Your task to perform on an android device: toggle priority inbox in the gmail app Image 0: 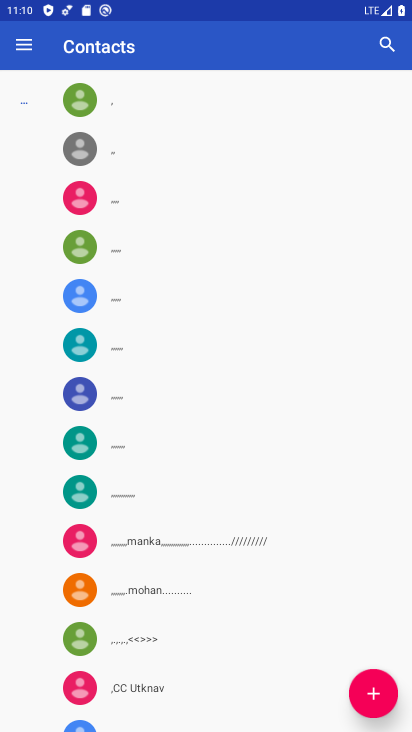
Step 0: press home button
Your task to perform on an android device: toggle priority inbox in the gmail app Image 1: 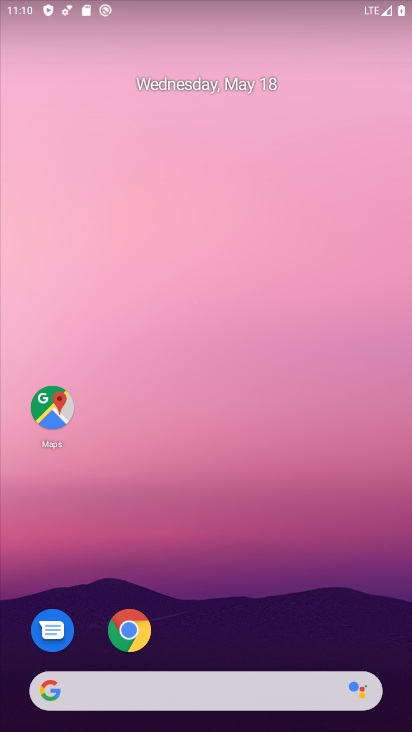
Step 1: drag from (221, 599) to (274, 100)
Your task to perform on an android device: toggle priority inbox in the gmail app Image 2: 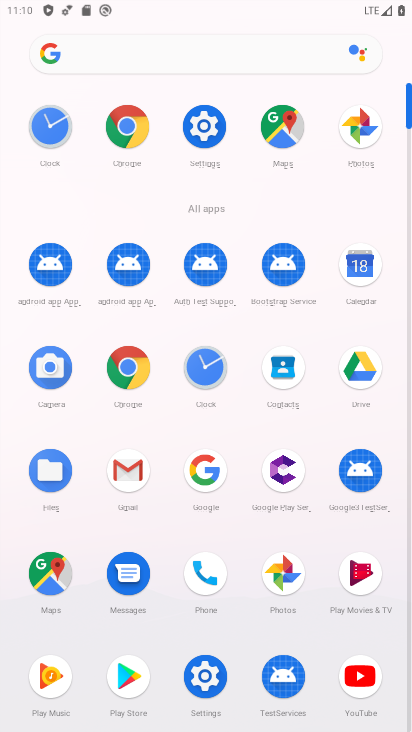
Step 2: click (134, 461)
Your task to perform on an android device: toggle priority inbox in the gmail app Image 3: 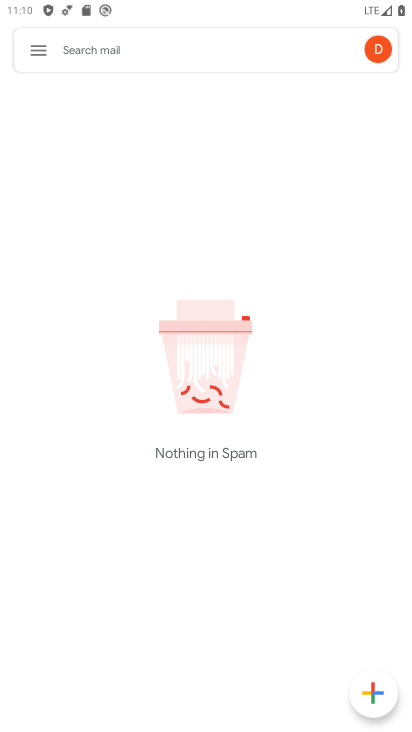
Step 3: click (44, 46)
Your task to perform on an android device: toggle priority inbox in the gmail app Image 4: 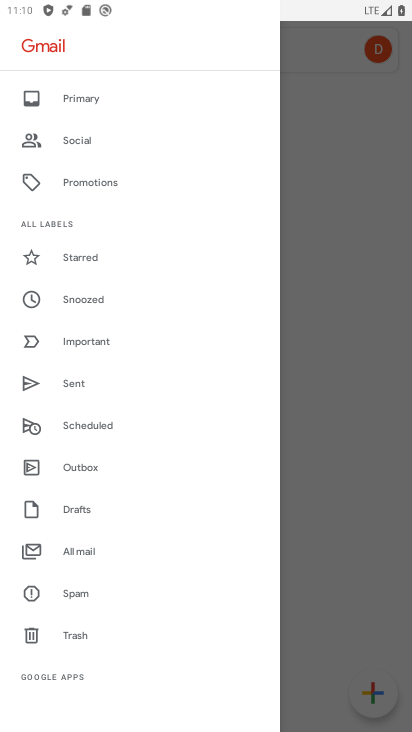
Step 4: drag from (98, 569) to (135, 310)
Your task to perform on an android device: toggle priority inbox in the gmail app Image 5: 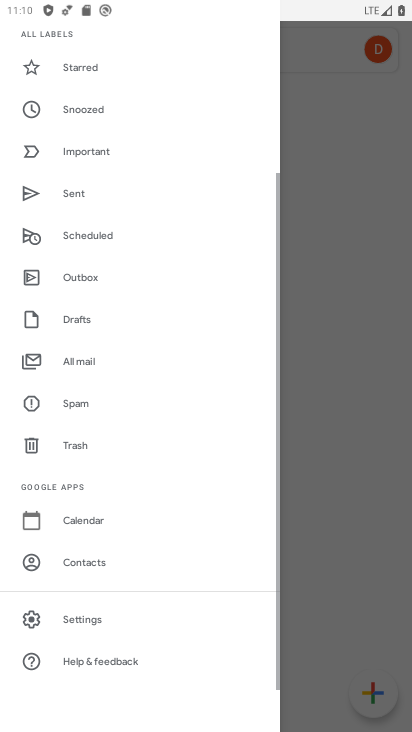
Step 5: click (85, 619)
Your task to perform on an android device: toggle priority inbox in the gmail app Image 6: 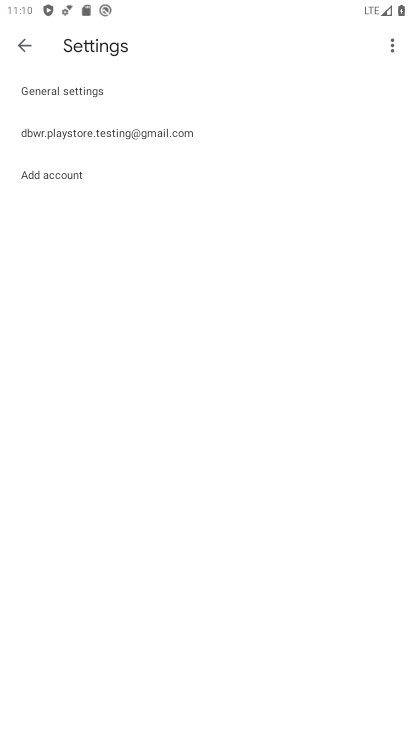
Step 6: click (89, 127)
Your task to perform on an android device: toggle priority inbox in the gmail app Image 7: 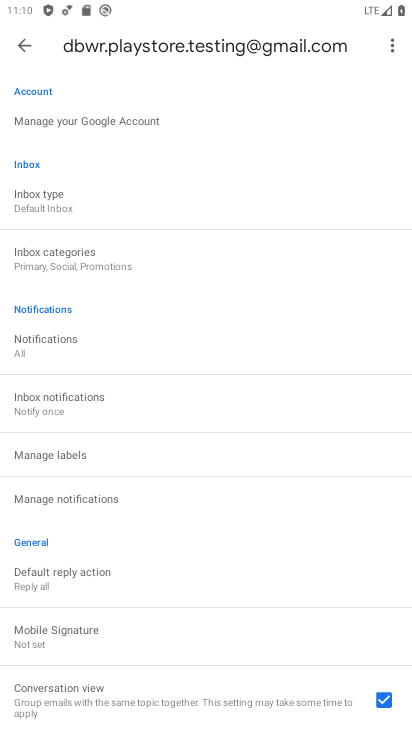
Step 7: click (83, 206)
Your task to perform on an android device: toggle priority inbox in the gmail app Image 8: 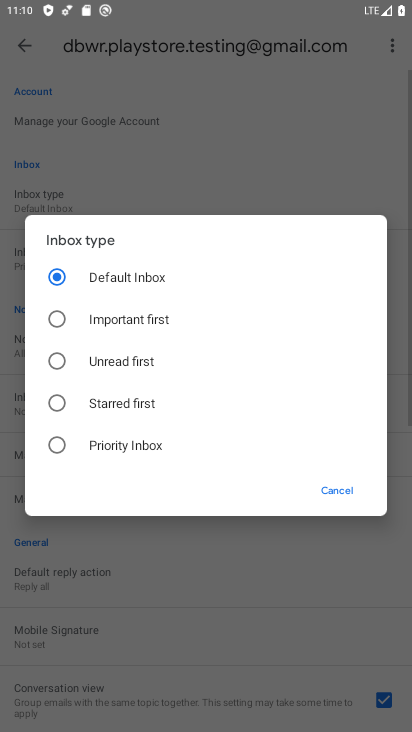
Step 8: click (77, 448)
Your task to perform on an android device: toggle priority inbox in the gmail app Image 9: 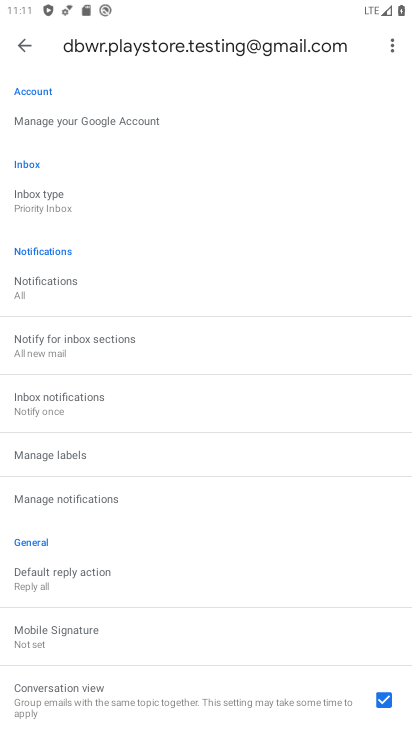
Step 9: task complete